Your task to perform on an android device: Search for the best custom wallets on Etsy. Image 0: 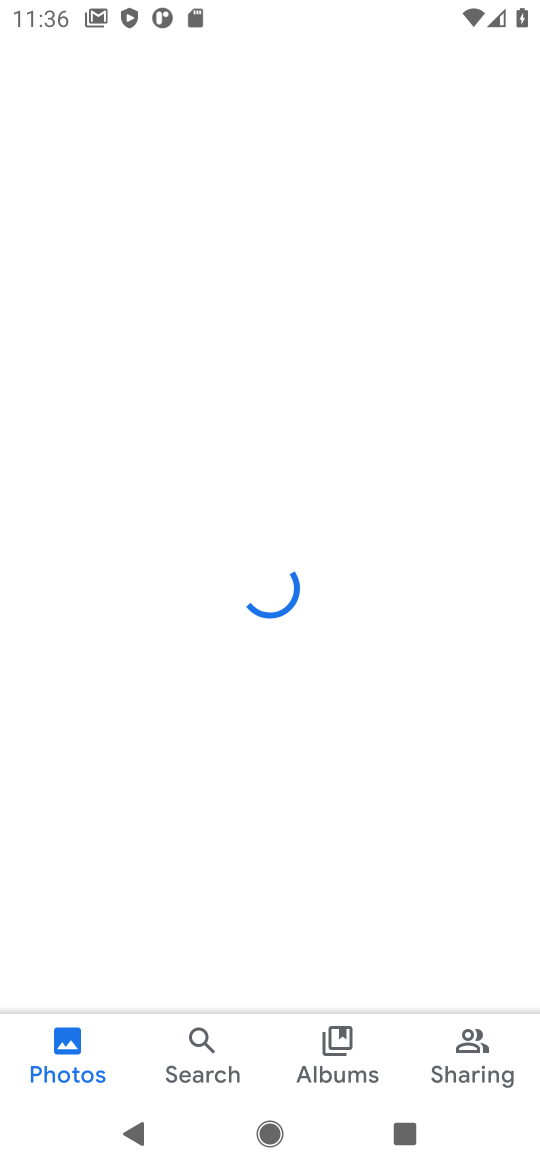
Step 0: press home button
Your task to perform on an android device: Search for the best custom wallets on Etsy. Image 1: 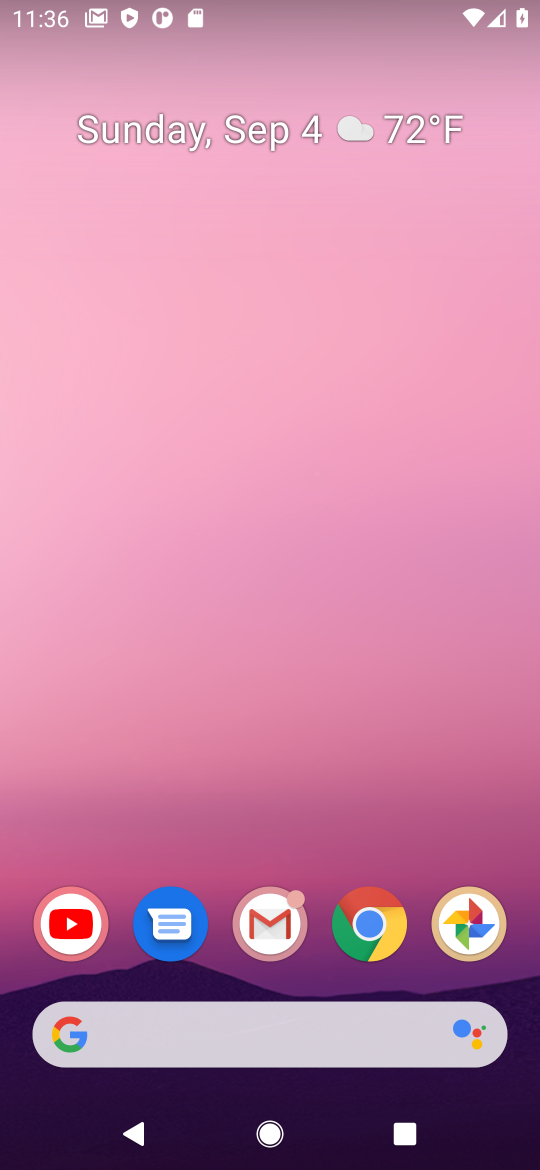
Step 1: drag from (385, 323) to (418, 113)
Your task to perform on an android device: Search for the best custom wallets on Etsy. Image 2: 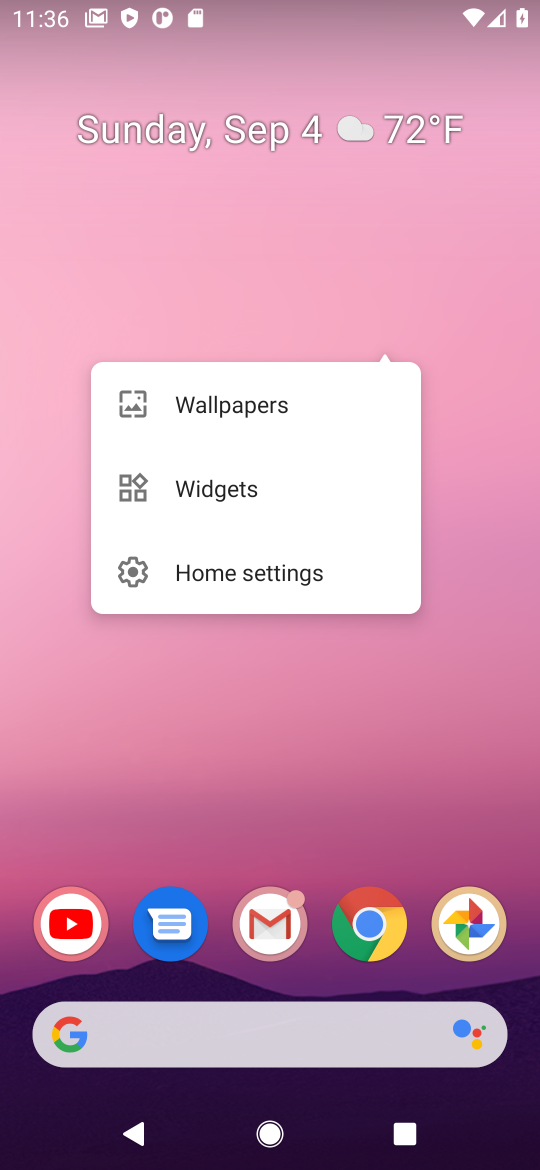
Step 2: click (311, 863)
Your task to perform on an android device: Search for the best custom wallets on Etsy. Image 3: 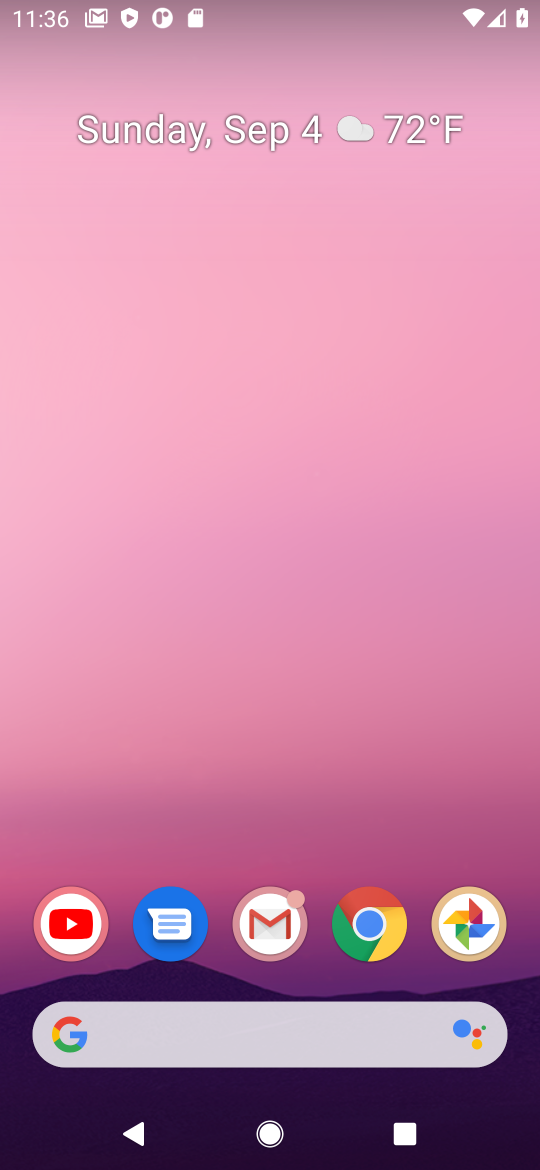
Step 3: drag from (317, 830) to (361, 4)
Your task to perform on an android device: Search for the best custom wallets on Etsy. Image 4: 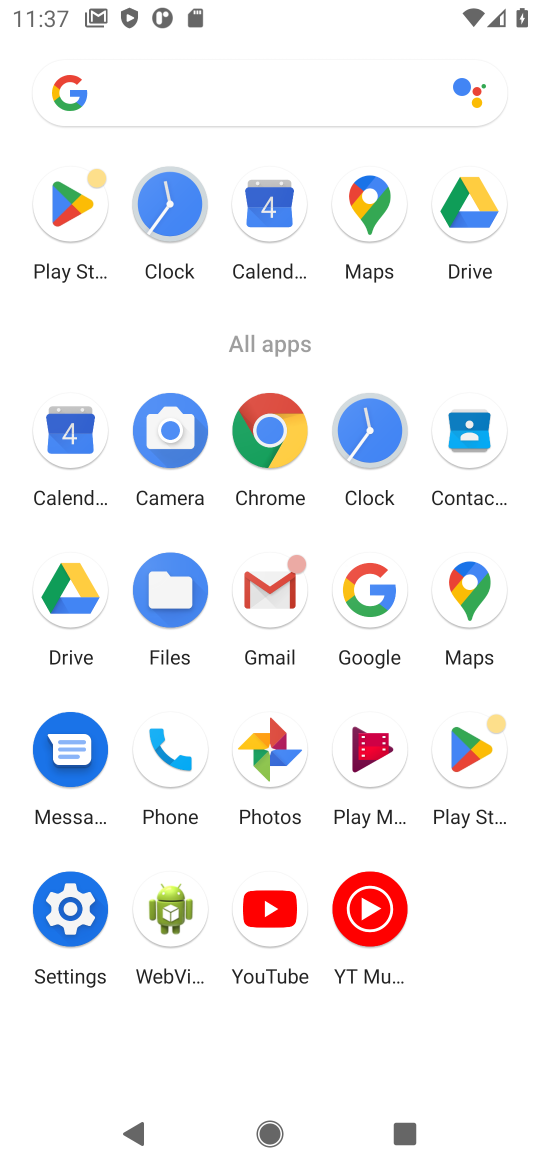
Step 4: click (264, 424)
Your task to perform on an android device: Search for the best custom wallets on Etsy. Image 5: 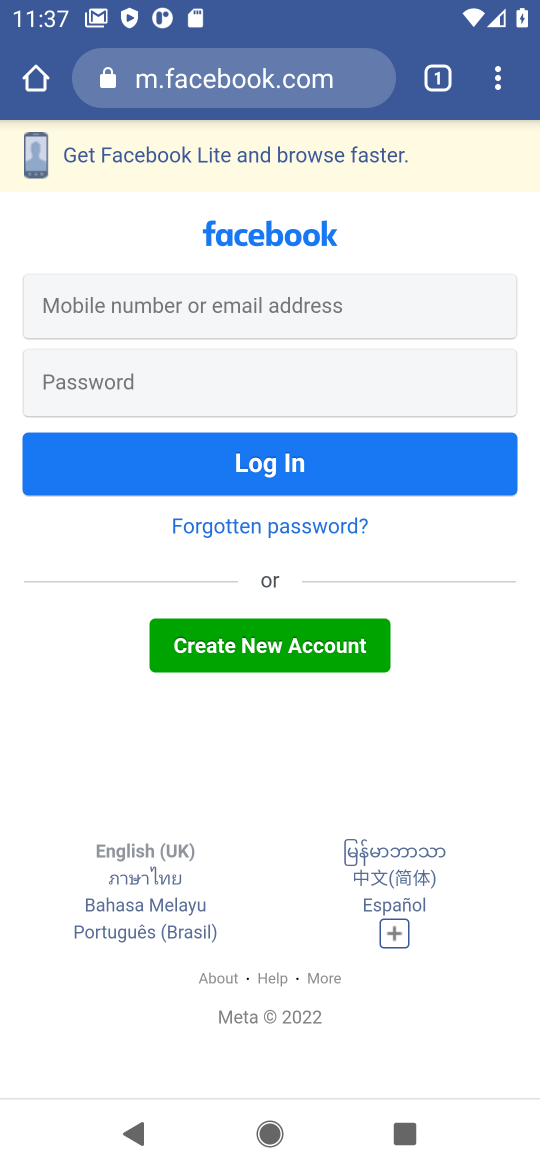
Step 5: click (443, 91)
Your task to perform on an android device: Search for the best custom wallets on Etsy. Image 6: 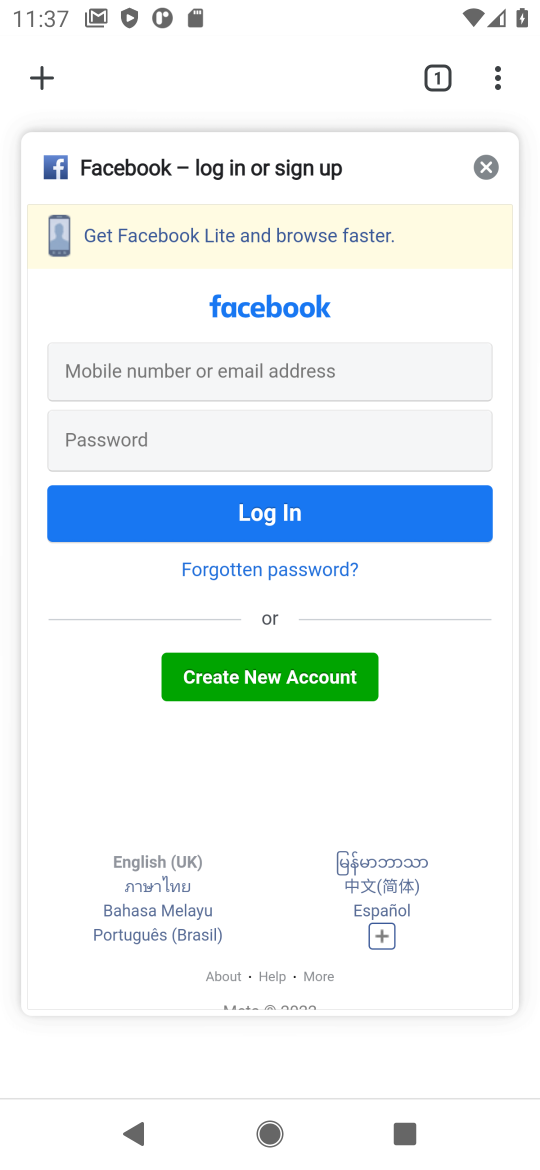
Step 6: click (487, 168)
Your task to perform on an android device: Search for the best custom wallets on Etsy. Image 7: 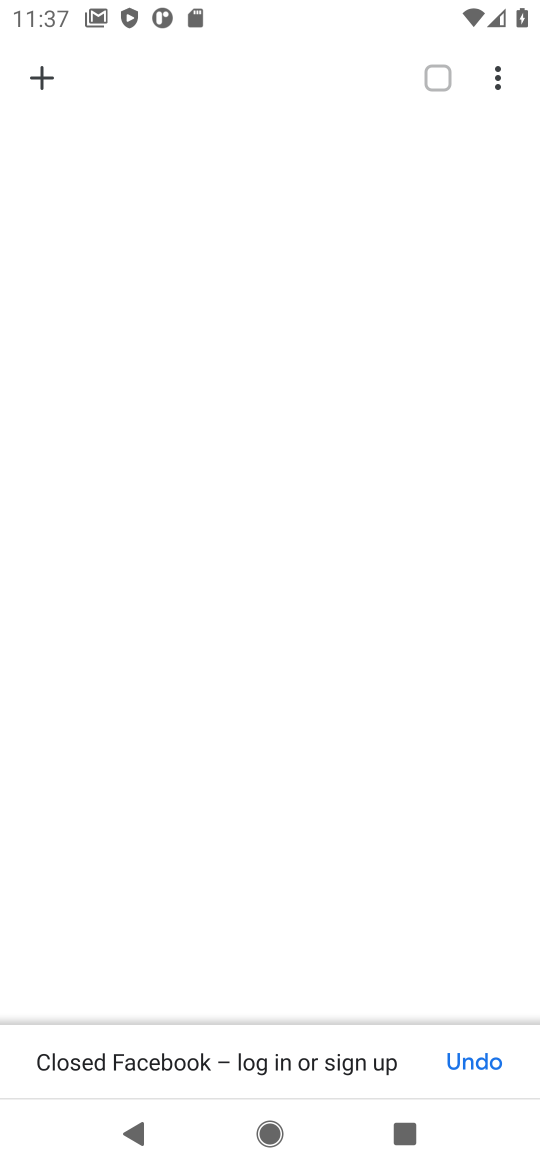
Step 7: click (39, 81)
Your task to perform on an android device: Search for the best custom wallets on Etsy. Image 8: 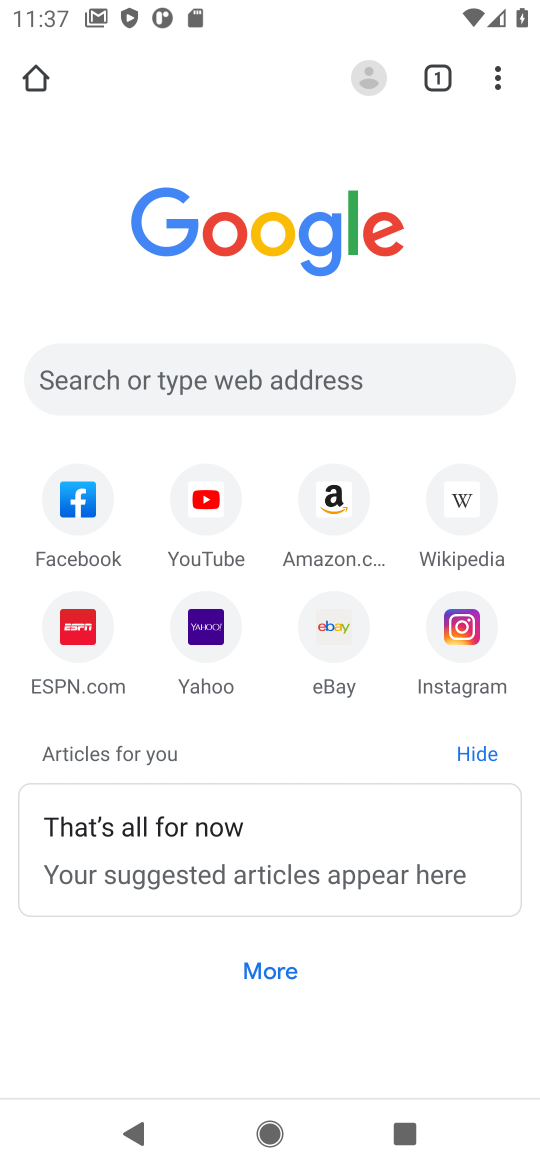
Step 8: click (192, 374)
Your task to perform on an android device: Search for the best custom wallets on Etsy. Image 9: 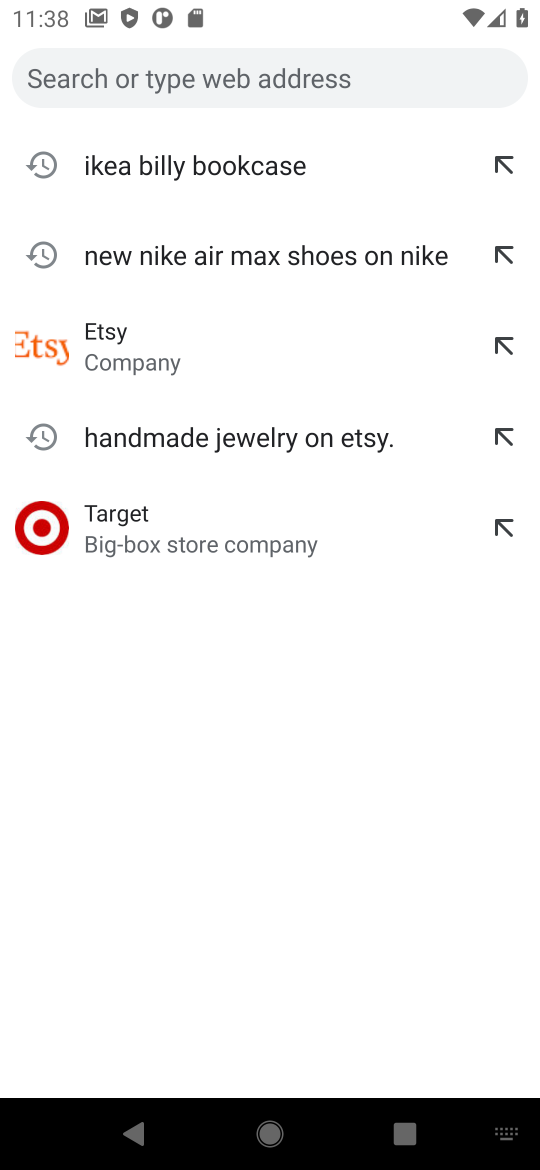
Step 9: type "best custom wallets on Etsy"
Your task to perform on an android device: Search for the best custom wallets on Etsy. Image 10: 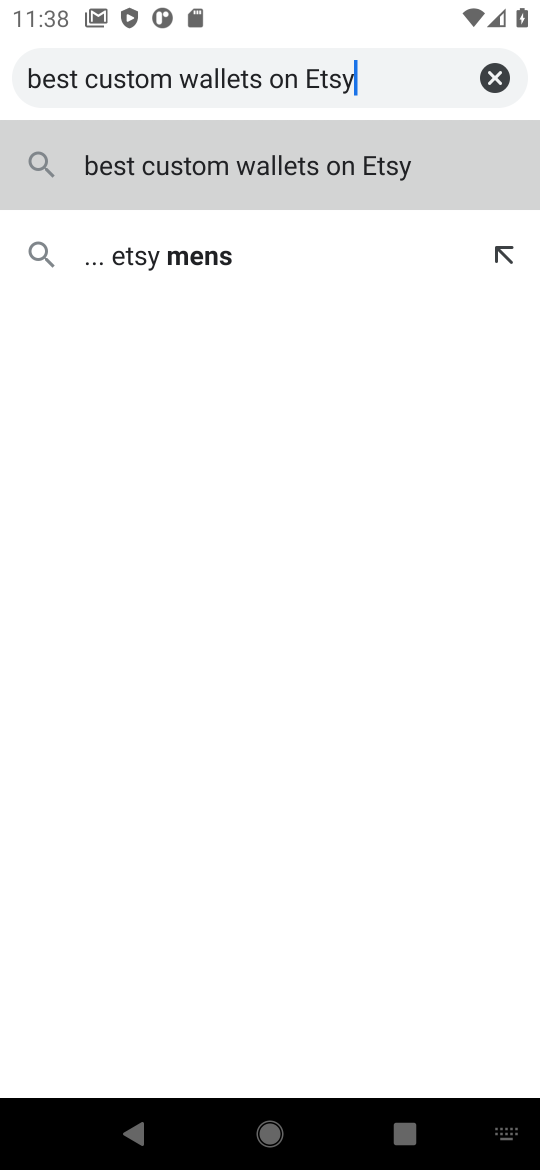
Step 10: click (221, 170)
Your task to perform on an android device: Search for the best custom wallets on Etsy. Image 11: 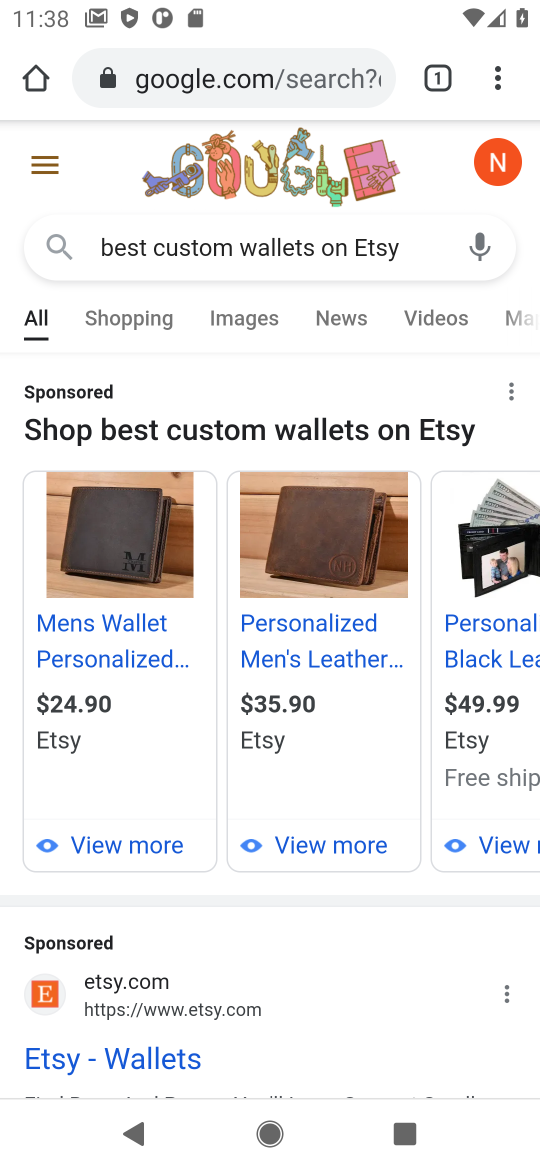
Step 11: drag from (294, 991) to (371, 371)
Your task to perform on an android device: Search for the best custom wallets on Etsy. Image 12: 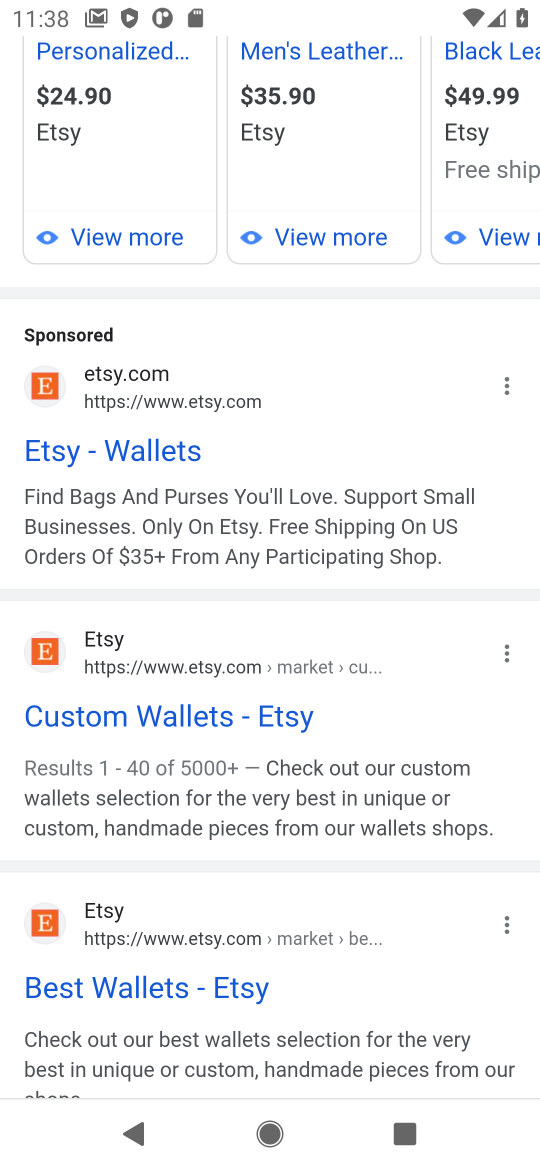
Step 12: click (170, 719)
Your task to perform on an android device: Search for the best custom wallets on Etsy. Image 13: 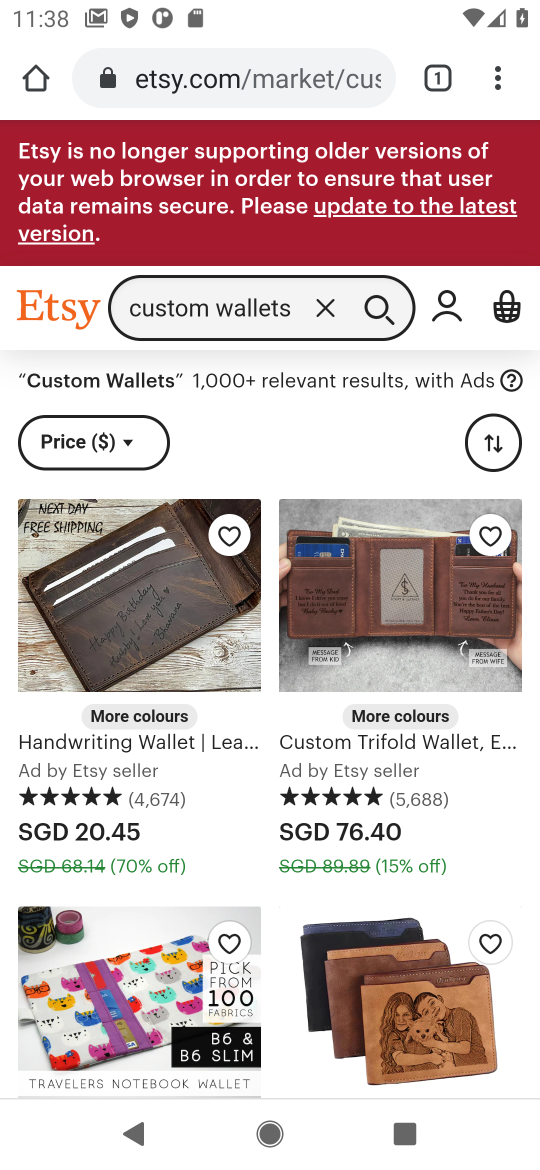
Step 13: task complete